Your task to perform on an android device: empty trash in the gmail app Image 0: 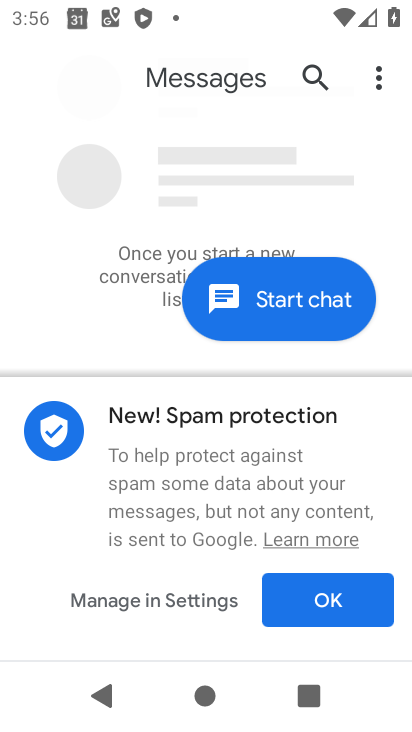
Step 0: press back button
Your task to perform on an android device: empty trash in the gmail app Image 1: 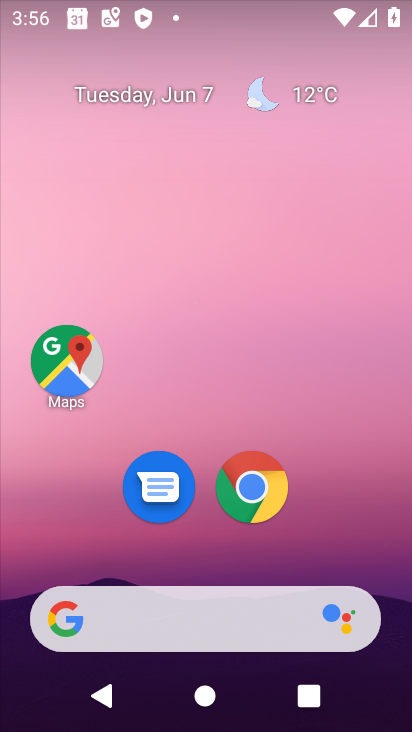
Step 1: drag from (172, 543) to (218, 44)
Your task to perform on an android device: empty trash in the gmail app Image 2: 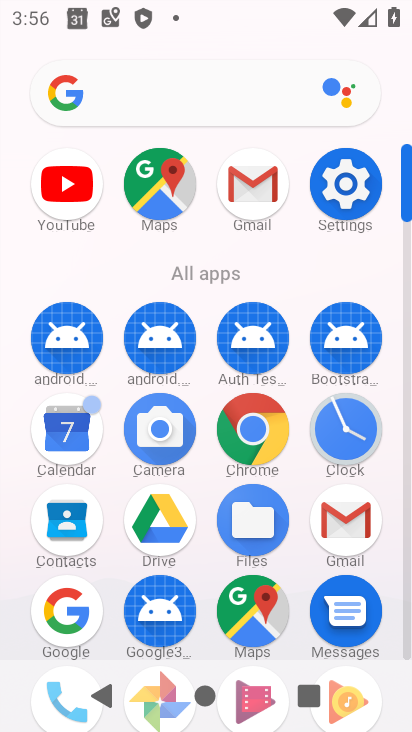
Step 2: click (245, 198)
Your task to perform on an android device: empty trash in the gmail app Image 3: 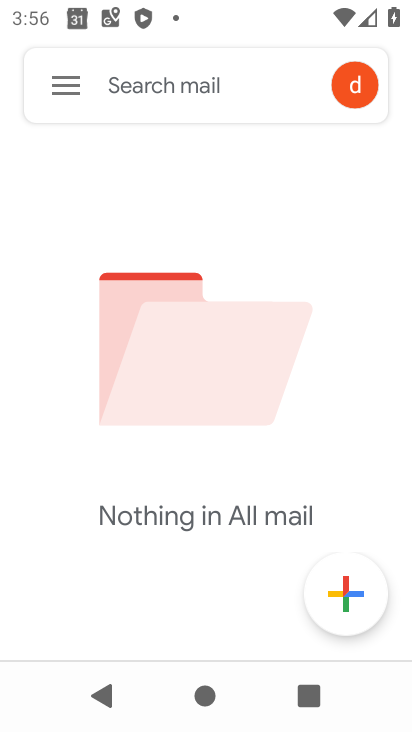
Step 3: click (67, 84)
Your task to perform on an android device: empty trash in the gmail app Image 4: 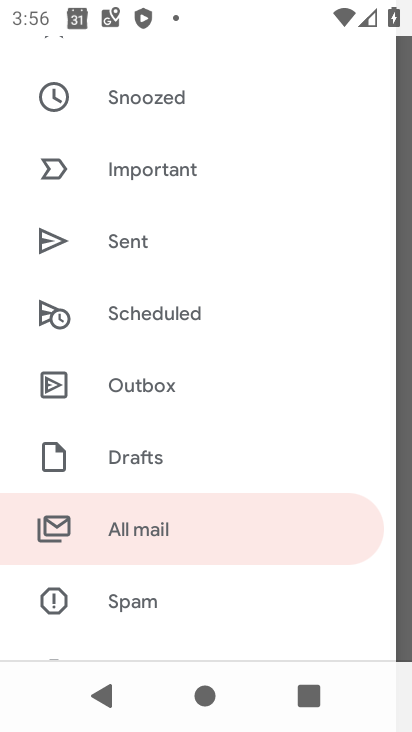
Step 4: drag from (237, 159) to (196, 562)
Your task to perform on an android device: empty trash in the gmail app Image 5: 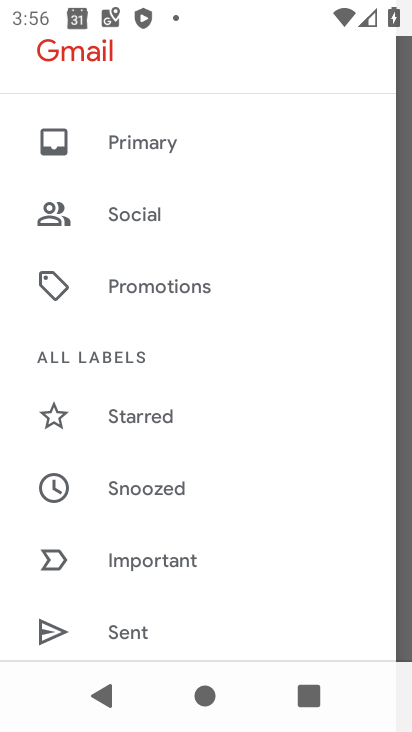
Step 5: drag from (183, 203) to (258, 215)
Your task to perform on an android device: empty trash in the gmail app Image 6: 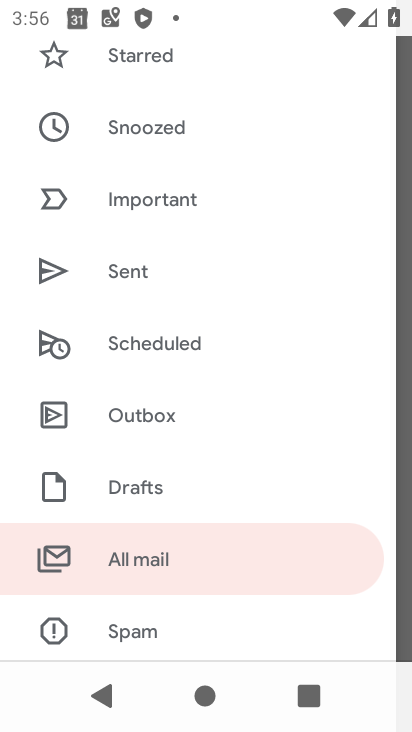
Step 6: drag from (208, 532) to (244, 144)
Your task to perform on an android device: empty trash in the gmail app Image 7: 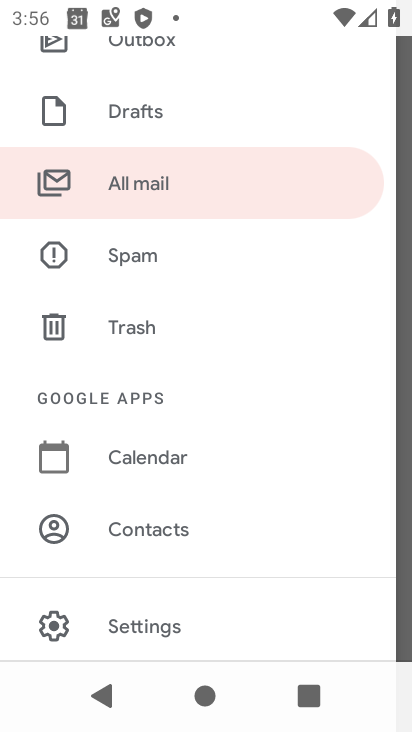
Step 7: click (116, 323)
Your task to perform on an android device: empty trash in the gmail app Image 8: 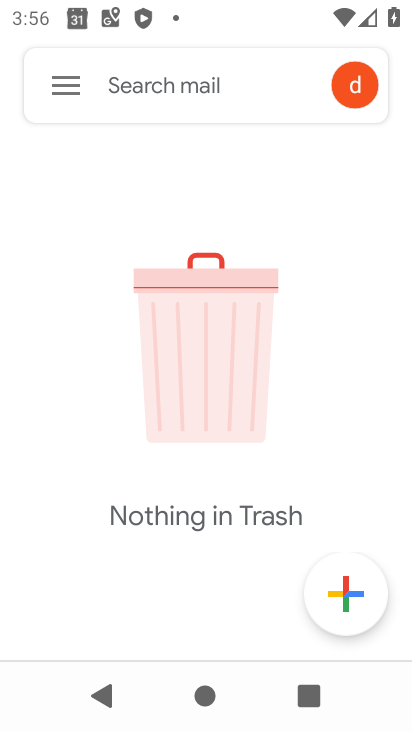
Step 8: task complete